Your task to perform on an android device: Go to Reddit.com Image 0: 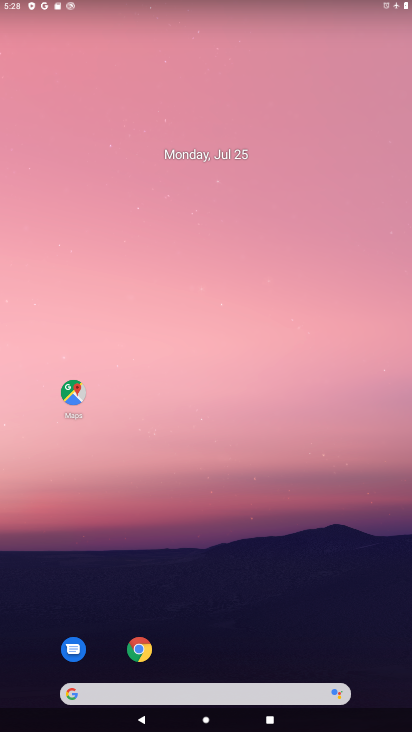
Step 0: drag from (205, 709) to (228, 9)
Your task to perform on an android device: Go to Reddit.com Image 1: 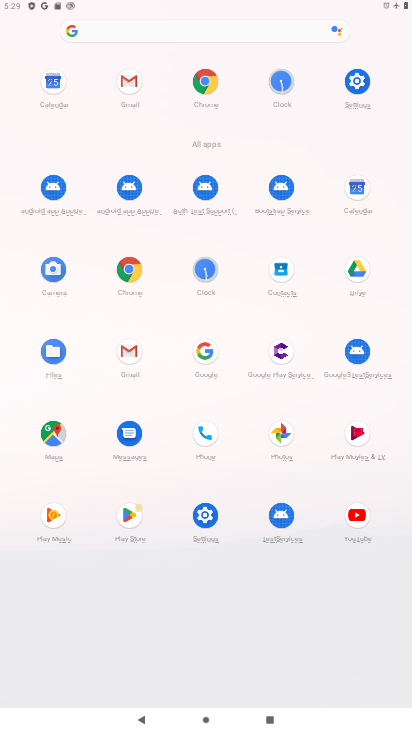
Step 1: click (134, 274)
Your task to perform on an android device: Go to Reddit.com Image 2: 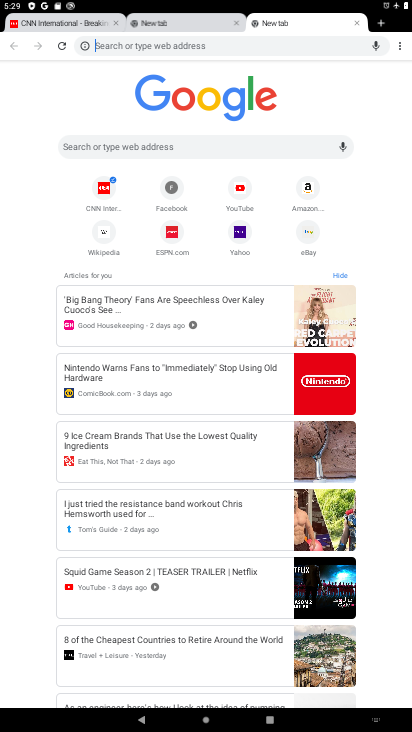
Step 2: click (145, 41)
Your task to perform on an android device: Go to Reddit.com Image 3: 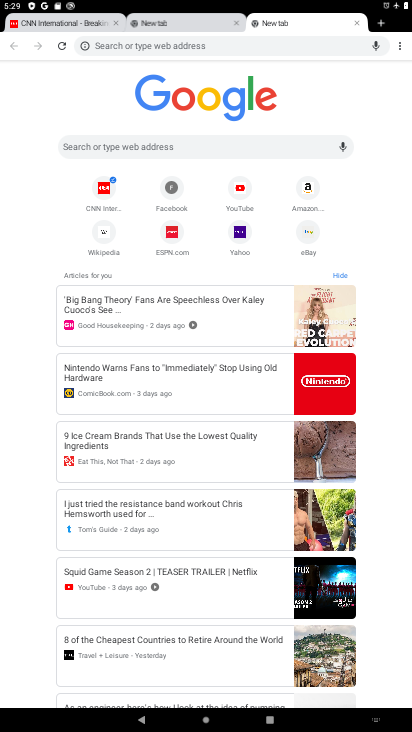
Step 3: type "reddit.com"
Your task to perform on an android device: Go to Reddit.com Image 4: 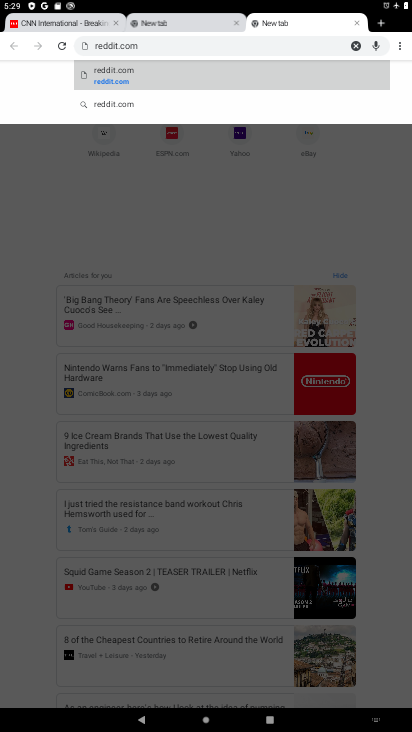
Step 4: click (215, 68)
Your task to perform on an android device: Go to Reddit.com Image 5: 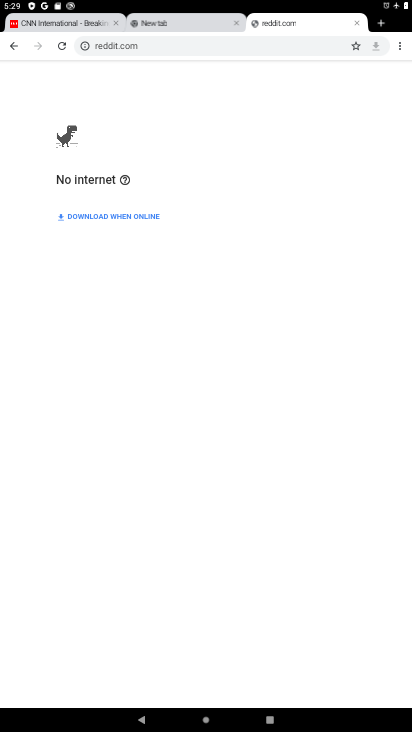
Step 5: task complete